Your task to perform on an android device: Turn off the flashlight Image 0: 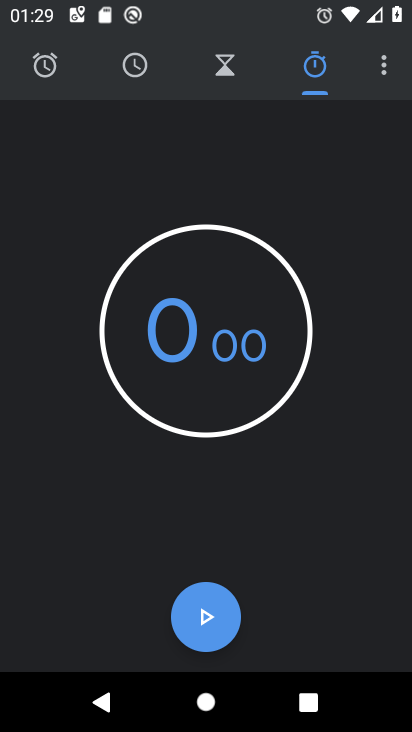
Step 0: press home button
Your task to perform on an android device: Turn off the flashlight Image 1: 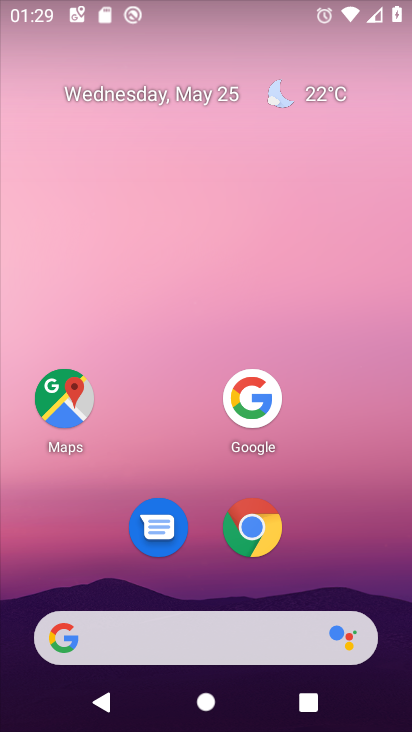
Step 1: task complete